Your task to perform on an android device: turn on location history Image 0: 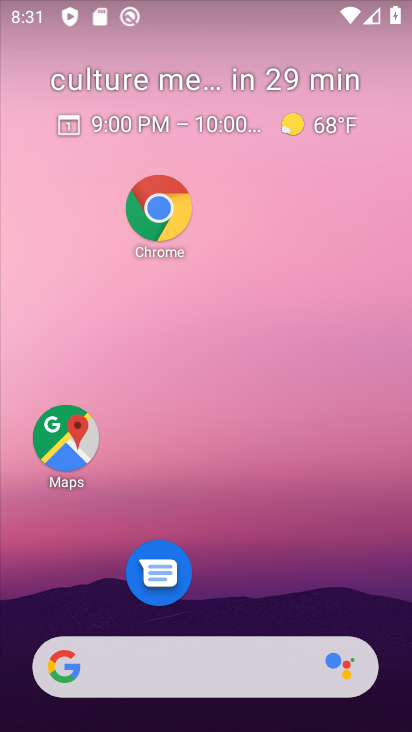
Step 0: drag from (283, 479) to (263, 111)
Your task to perform on an android device: turn on location history Image 1: 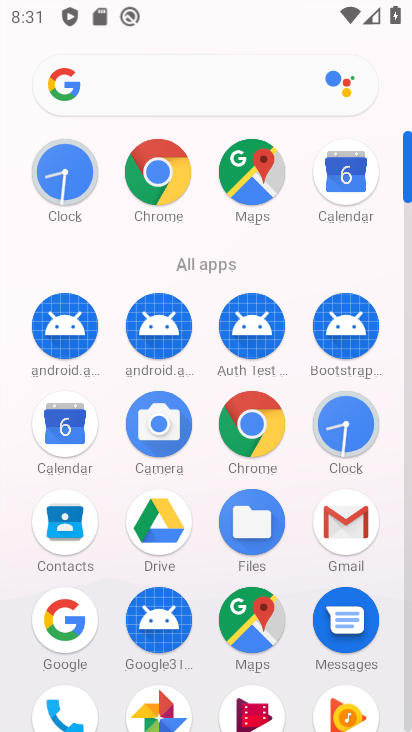
Step 1: drag from (222, 535) to (185, 204)
Your task to perform on an android device: turn on location history Image 2: 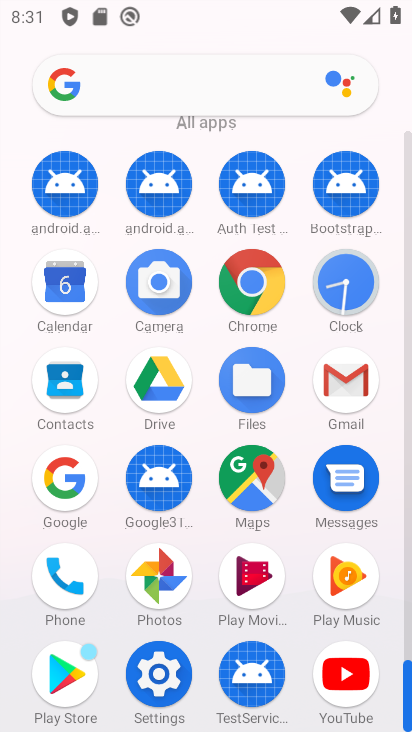
Step 2: click (151, 675)
Your task to perform on an android device: turn on location history Image 3: 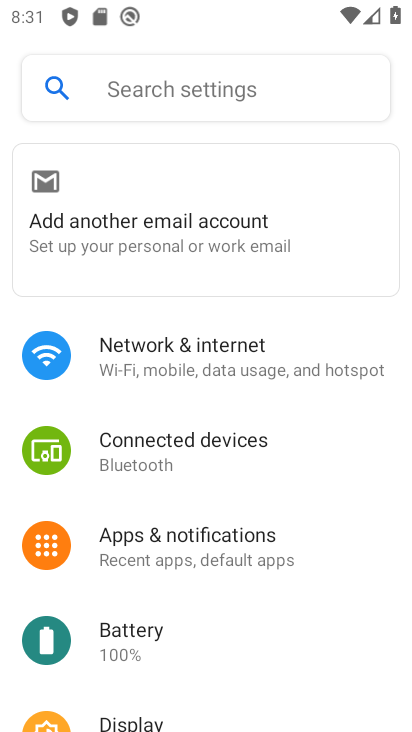
Step 3: drag from (224, 488) to (178, 180)
Your task to perform on an android device: turn on location history Image 4: 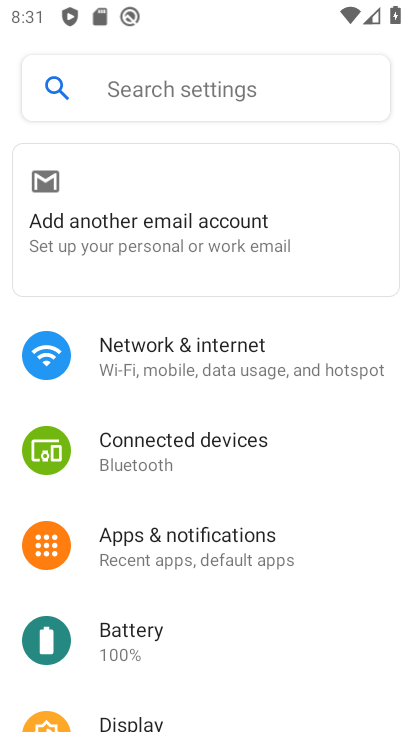
Step 4: drag from (216, 432) to (178, 148)
Your task to perform on an android device: turn on location history Image 5: 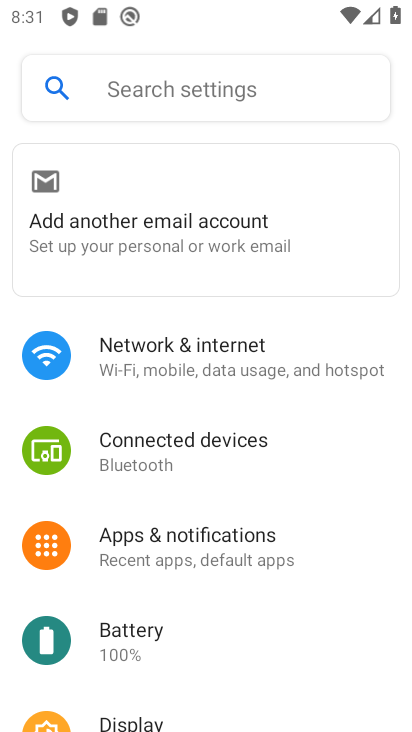
Step 5: drag from (230, 570) to (198, 242)
Your task to perform on an android device: turn on location history Image 6: 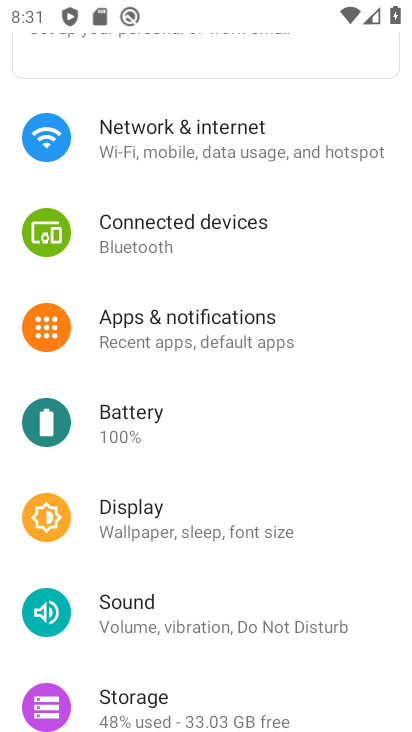
Step 6: drag from (248, 566) to (183, 271)
Your task to perform on an android device: turn on location history Image 7: 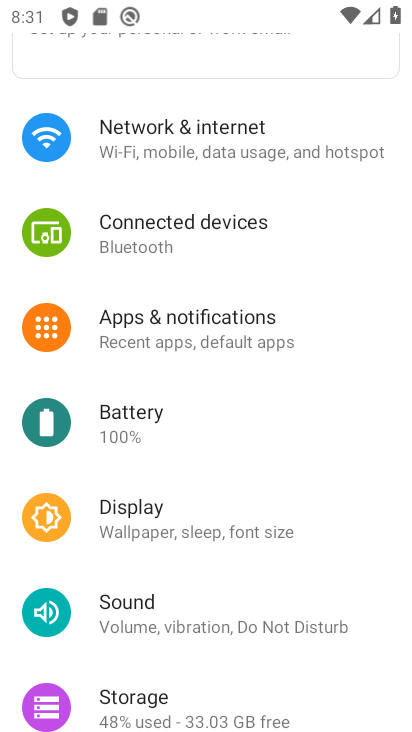
Step 7: drag from (226, 552) to (226, 358)
Your task to perform on an android device: turn on location history Image 8: 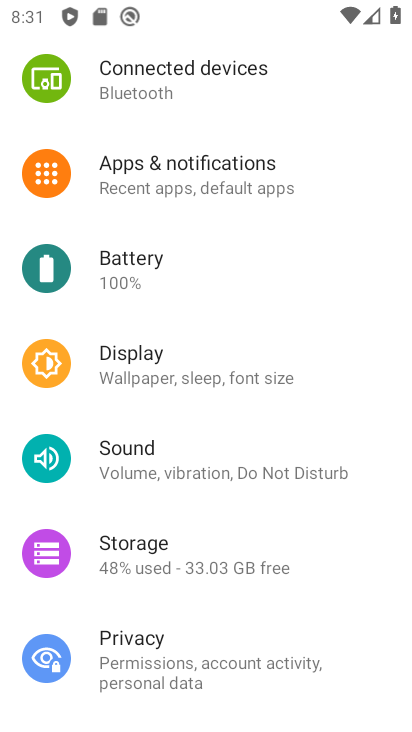
Step 8: drag from (154, 151) to (182, 513)
Your task to perform on an android device: turn on location history Image 9: 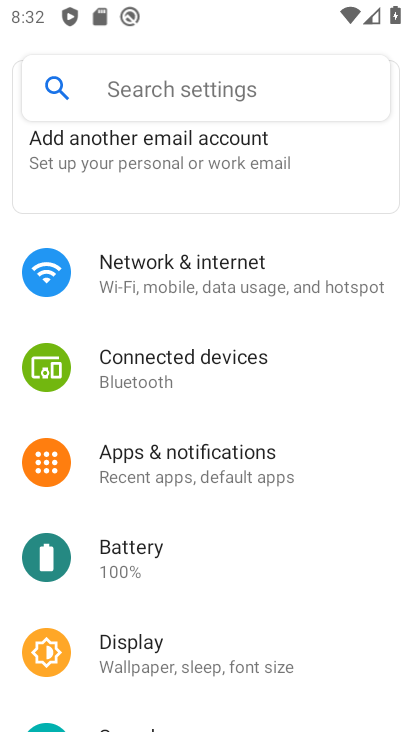
Step 9: drag from (188, 269) to (190, 648)
Your task to perform on an android device: turn on location history Image 10: 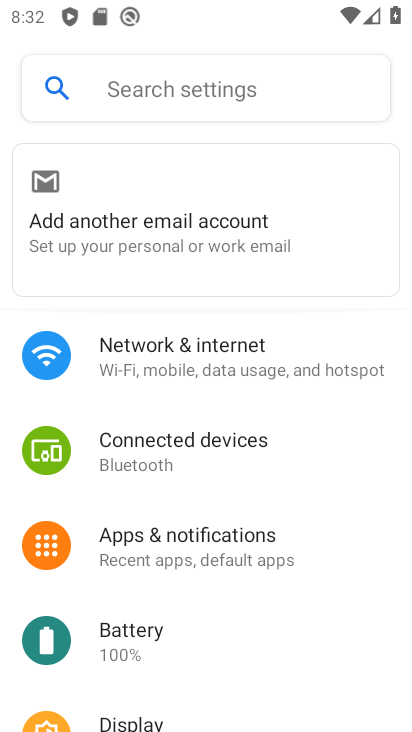
Step 10: drag from (198, 538) to (167, 216)
Your task to perform on an android device: turn on location history Image 11: 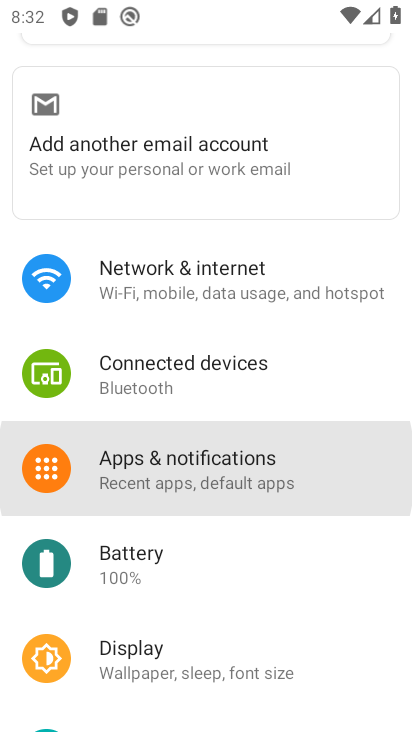
Step 11: drag from (218, 512) to (218, 307)
Your task to perform on an android device: turn on location history Image 12: 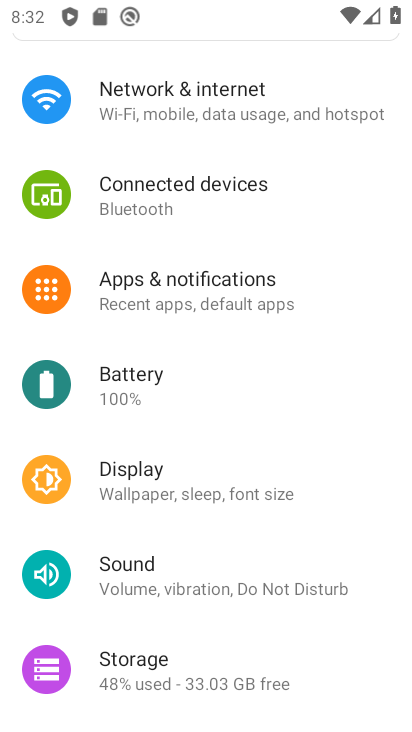
Step 12: drag from (205, 621) to (226, 378)
Your task to perform on an android device: turn on location history Image 13: 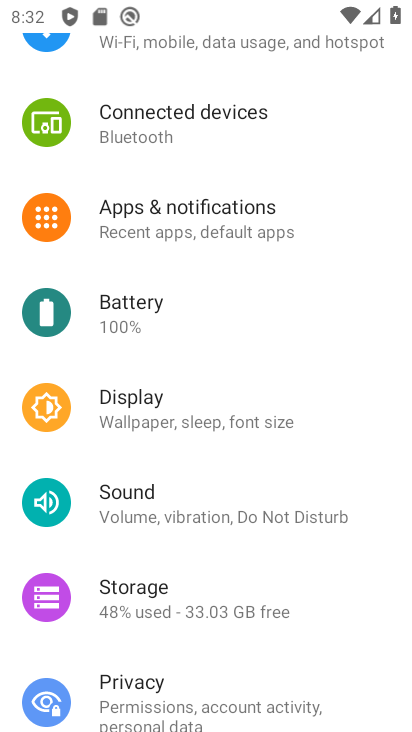
Step 13: drag from (244, 344) to (219, 166)
Your task to perform on an android device: turn on location history Image 14: 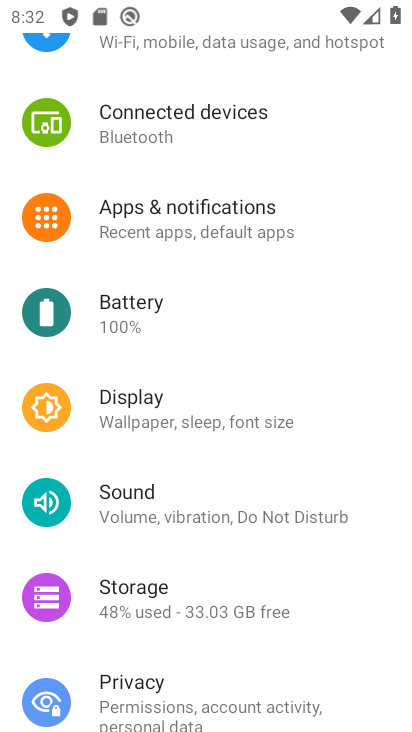
Step 14: drag from (186, 569) to (186, 307)
Your task to perform on an android device: turn on location history Image 15: 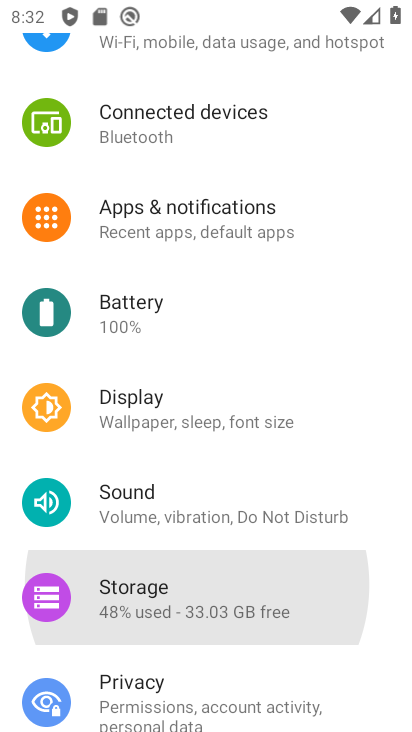
Step 15: drag from (186, 555) to (185, 150)
Your task to perform on an android device: turn on location history Image 16: 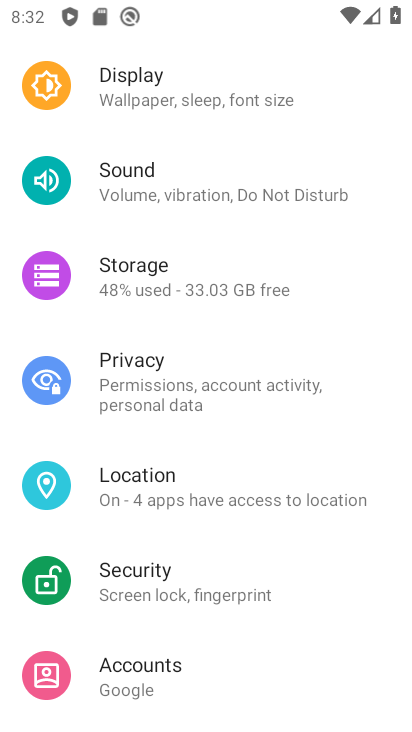
Step 16: drag from (247, 467) to (218, 127)
Your task to perform on an android device: turn on location history Image 17: 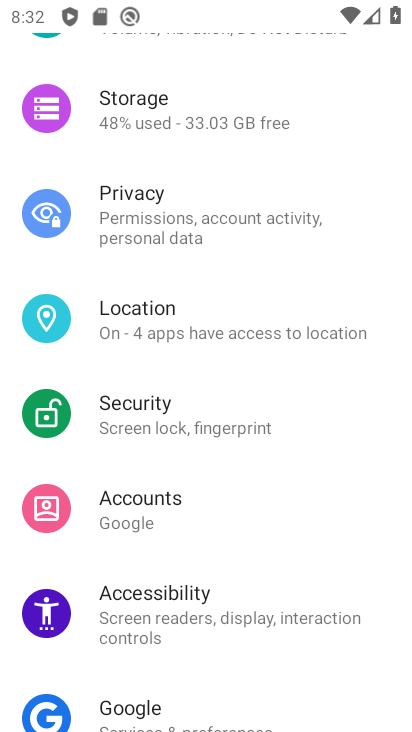
Step 17: click (141, 322)
Your task to perform on an android device: turn on location history Image 18: 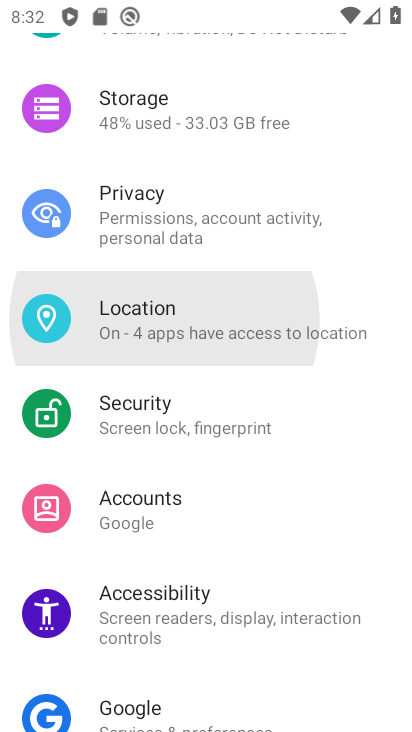
Step 18: click (141, 322)
Your task to perform on an android device: turn on location history Image 19: 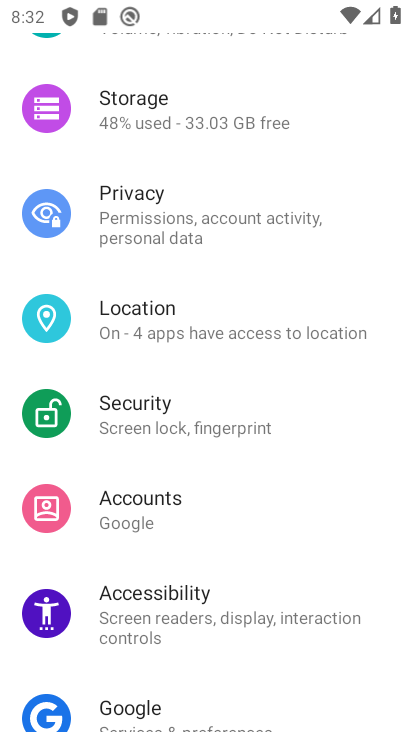
Step 19: click (141, 322)
Your task to perform on an android device: turn on location history Image 20: 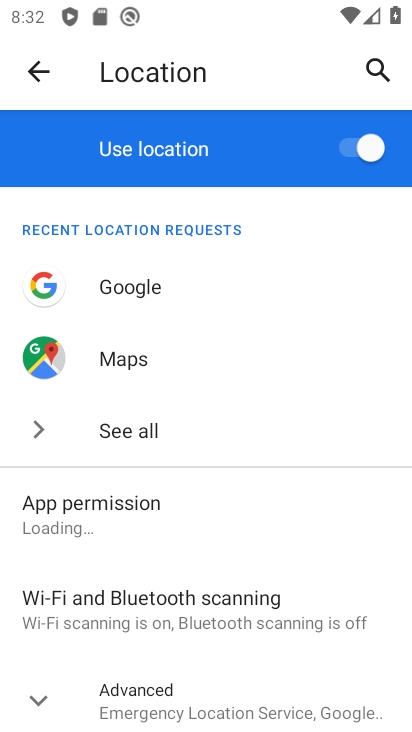
Step 20: task complete